Your task to perform on an android device: uninstall "Google Play Music" Image 0: 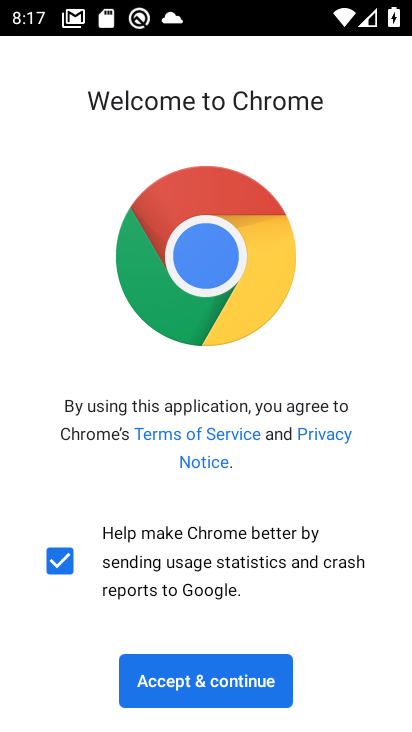
Step 0: press home button
Your task to perform on an android device: uninstall "Google Play Music" Image 1: 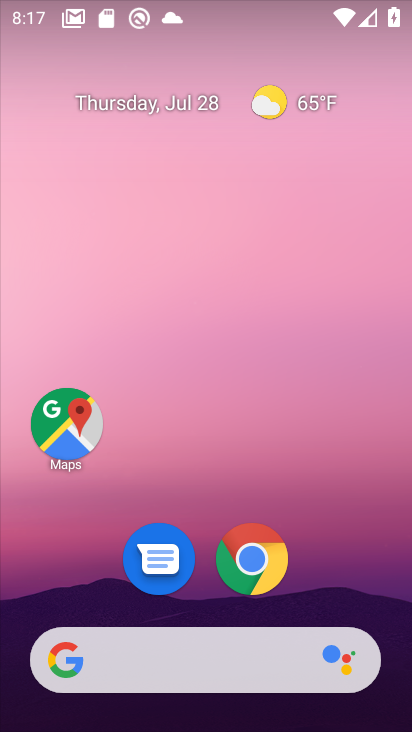
Step 1: drag from (218, 608) to (195, 228)
Your task to perform on an android device: uninstall "Google Play Music" Image 2: 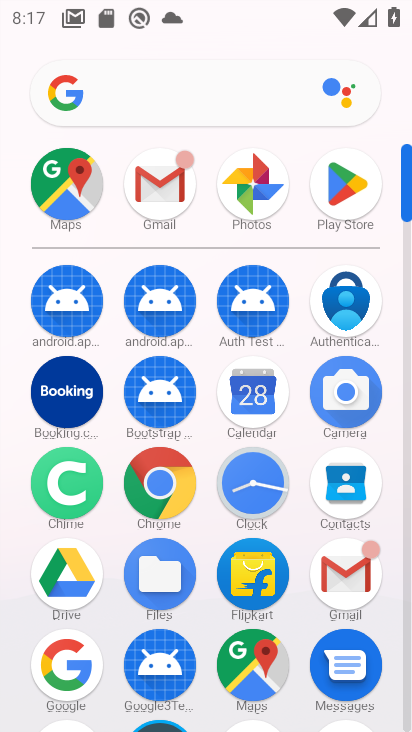
Step 2: click (339, 194)
Your task to perform on an android device: uninstall "Google Play Music" Image 3: 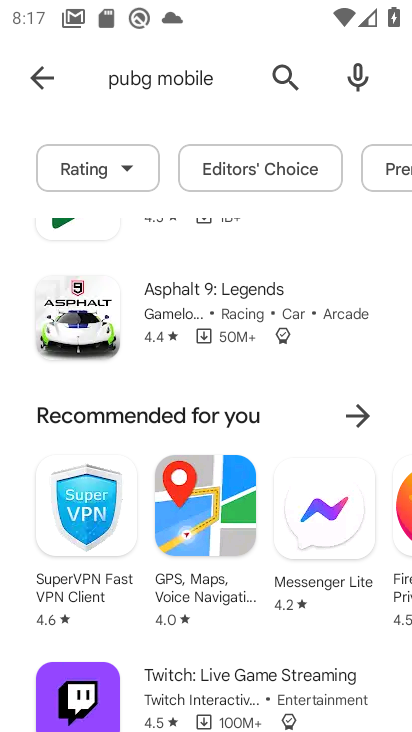
Step 3: click (167, 84)
Your task to perform on an android device: uninstall "Google Play Music" Image 4: 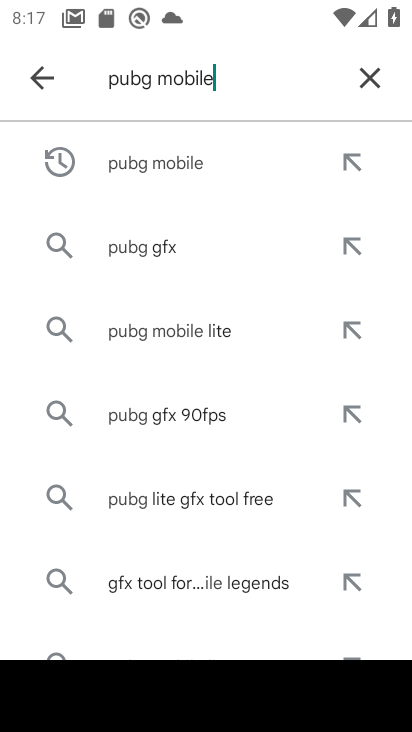
Step 4: click (360, 80)
Your task to perform on an android device: uninstall "Google Play Music" Image 5: 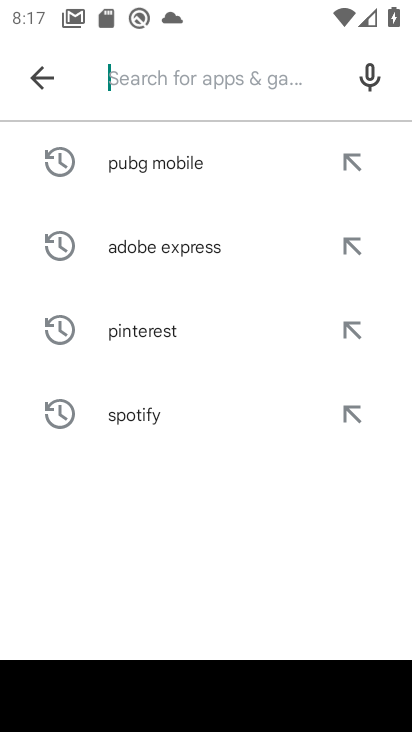
Step 5: type "Google Play Music"
Your task to perform on an android device: uninstall "Google Play Music" Image 6: 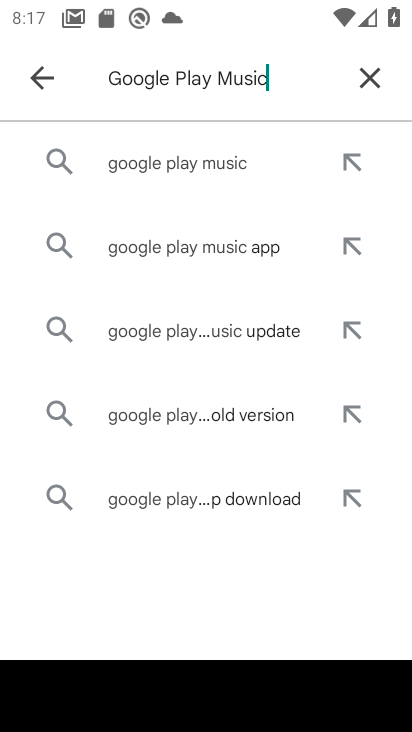
Step 6: click (191, 184)
Your task to perform on an android device: uninstall "Google Play Music" Image 7: 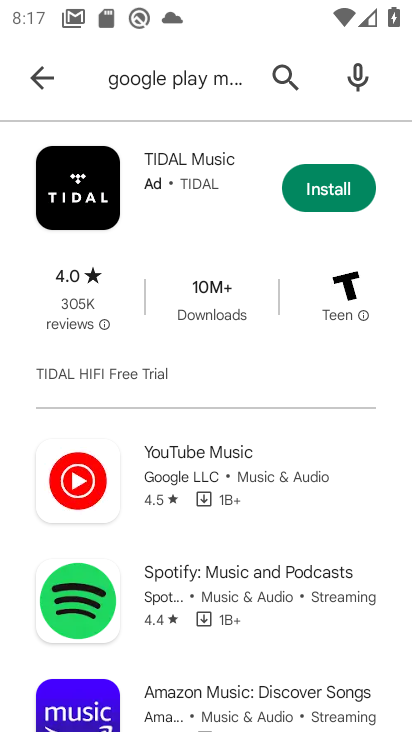
Step 7: task complete